Your task to perform on an android device: find which apps use the phone's location Image 0: 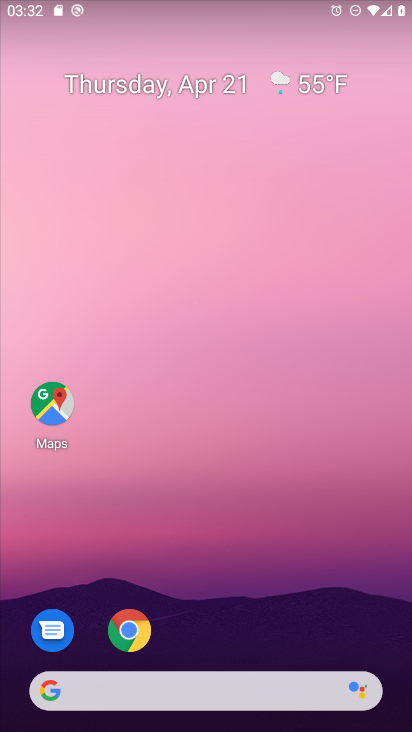
Step 0: drag from (309, 598) to (331, 0)
Your task to perform on an android device: find which apps use the phone's location Image 1: 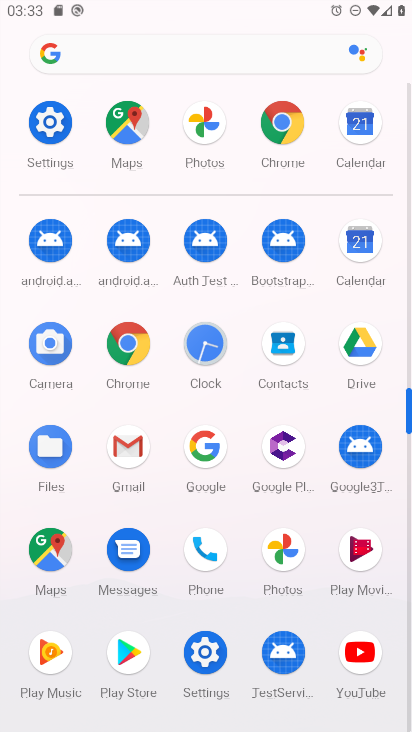
Step 1: click (58, 157)
Your task to perform on an android device: find which apps use the phone's location Image 2: 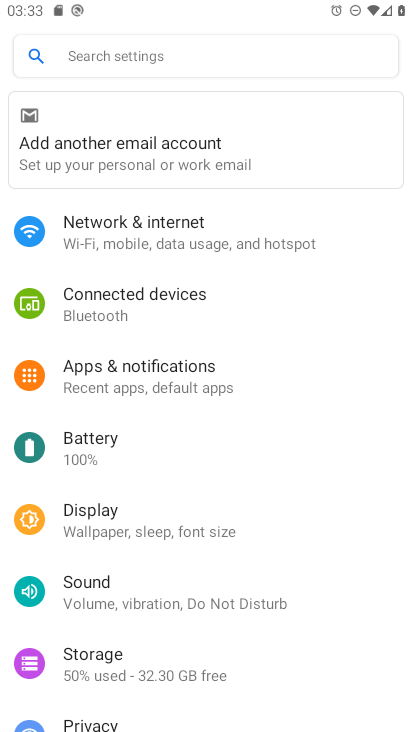
Step 2: drag from (211, 582) to (141, 291)
Your task to perform on an android device: find which apps use the phone's location Image 3: 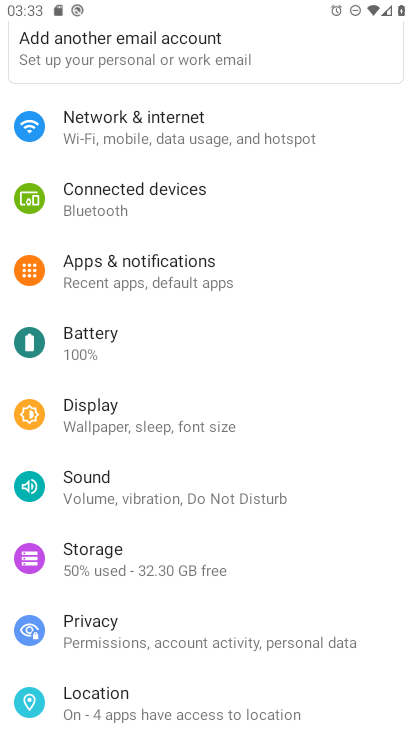
Step 3: click (99, 685)
Your task to perform on an android device: find which apps use the phone's location Image 4: 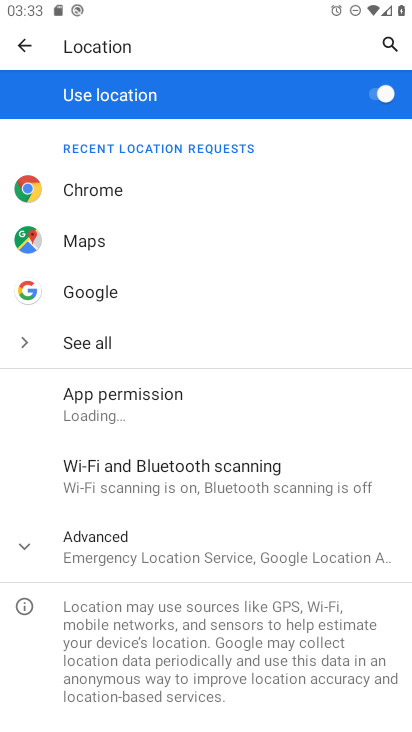
Step 4: click (152, 405)
Your task to perform on an android device: find which apps use the phone's location Image 5: 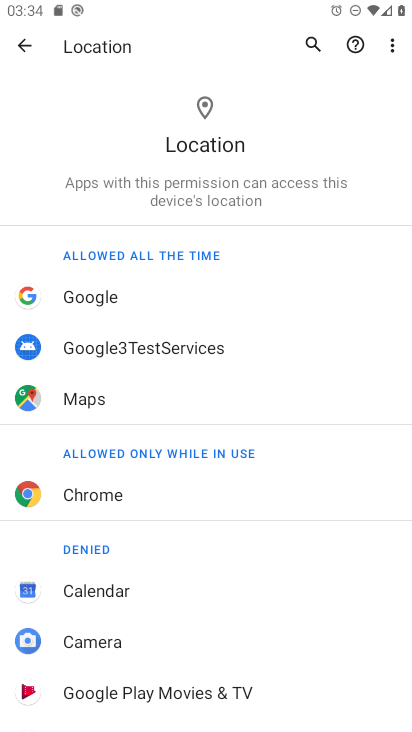
Step 5: task complete